Your task to perform on an android device: Do I have any events tomorrow? Image 0: 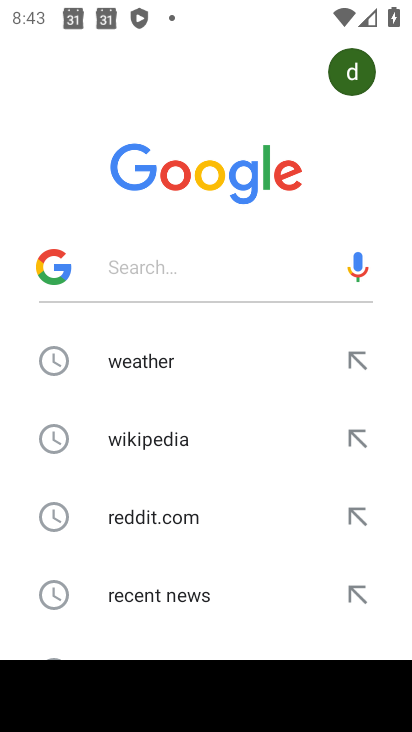
Step 0: click (404, 496)
Your task to perform on an android device: Do I have any events tomorrow? Image 1: 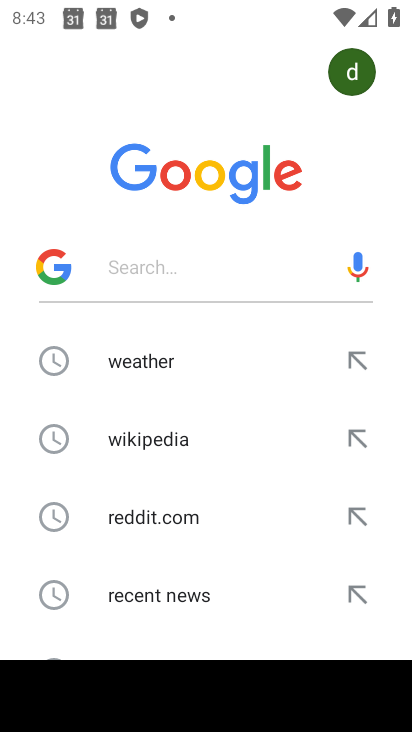
Step 1: press back button
Your task to perform on an android device: Do I have any events tomorrow? Image 2: 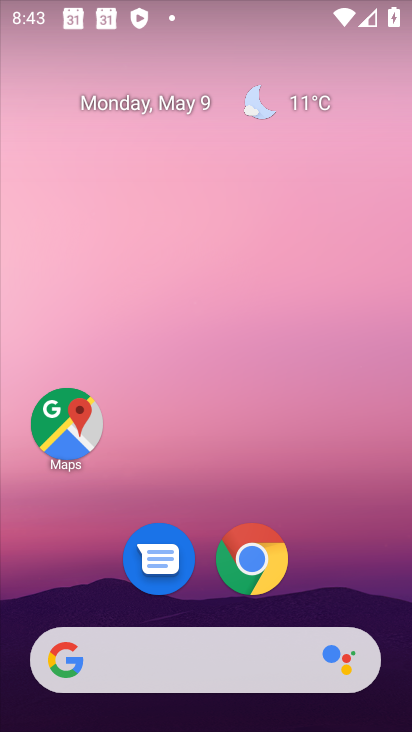
Step 2: drag from (353, 552) to (163, 1)
Your task to perform on an android device: Do I have any events tomorrow? Image 3: 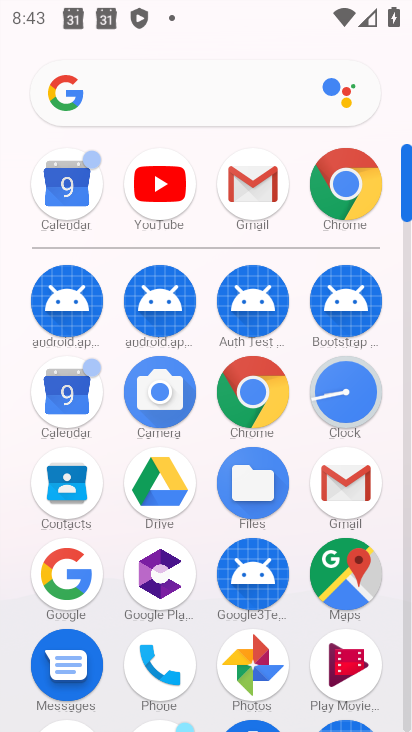
Step 3: click (56, 395)
Your task to perform on an android device: Do I have any events tomorrow? Image 4: 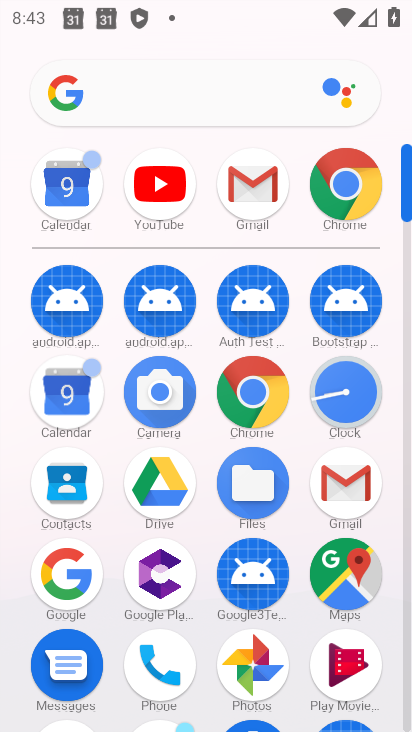
Step 4: click (60, 396)
Your task to perform on an android device: Do I have any events tomorrow? Image 5: 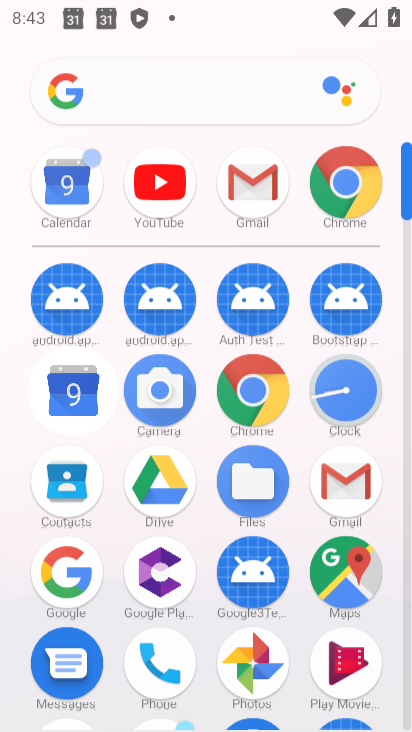
Step 5: click (60, 396)
Your task to perform on an android device: Do I have any events tomorrow? Image 6: 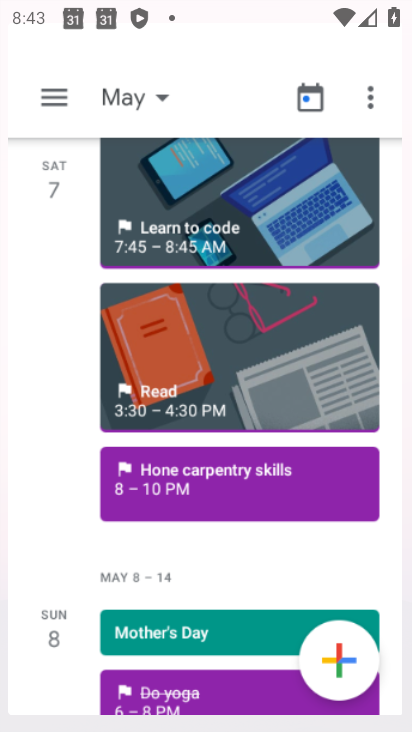
Step 6: click (63, 398)
Your task to perform on an android device: Do I have any events tomorrow? Image 7: 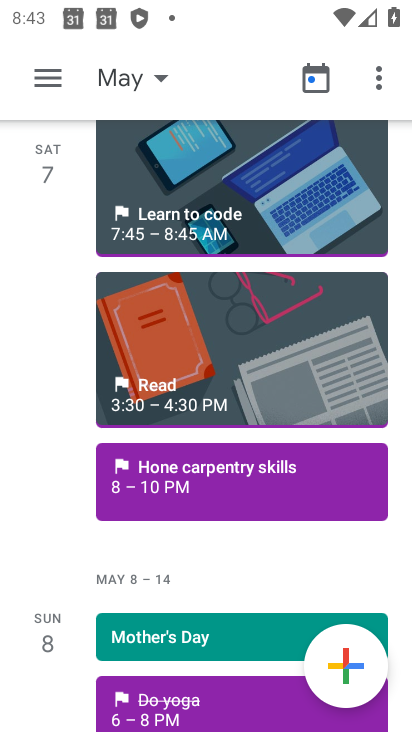
Step 7: click (157, 77)
Your task to perform on an android device: Do I have any events tomorrow? Image 8: 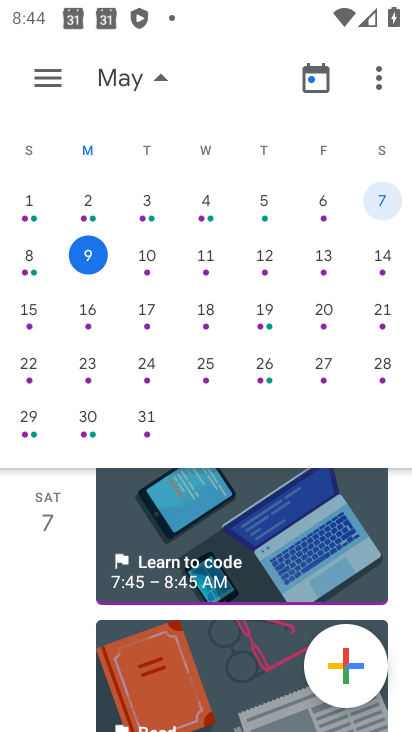
Step 8: task complete